Your task to perform on an android device: open a bookmark in the chrome app Image 0: 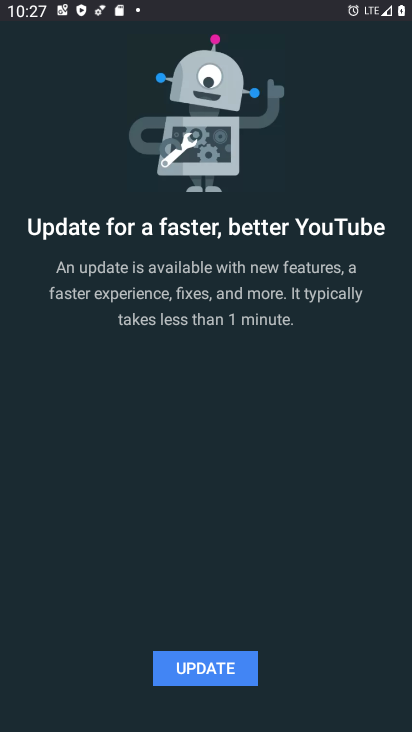
Step 0: press home button
Your task to perform on an android device: open a bookmark in the chrome app Image 1: 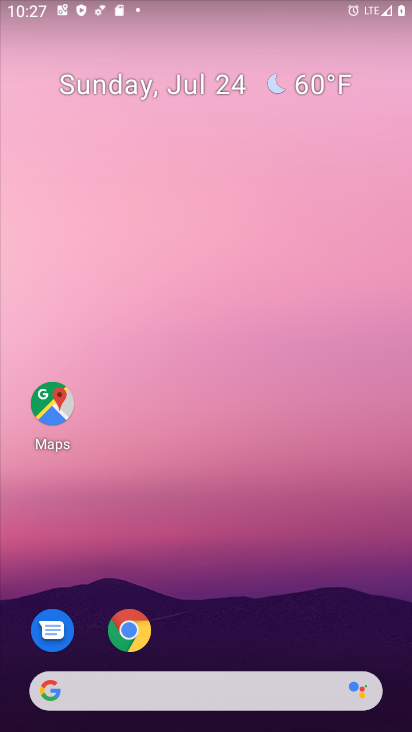
Step 1: drag from (194, 649) to (233, 79)
Your task to perform on an android device: open a bookmark in the chrome app Image 2: 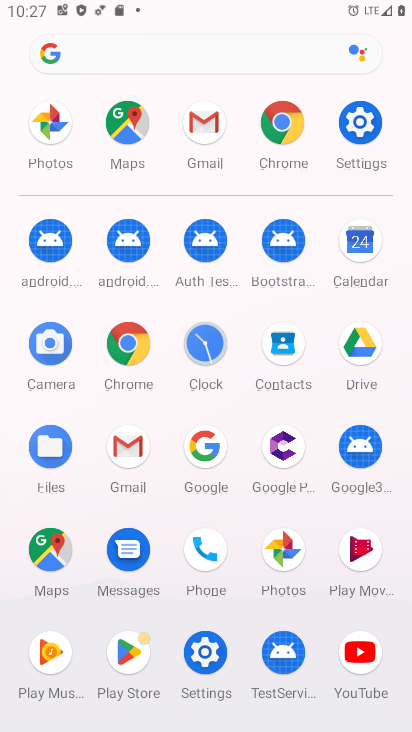
Step 2: click (127, 348)
Your task to perform on an android device: open a bookmark in the chrome app Image 3: 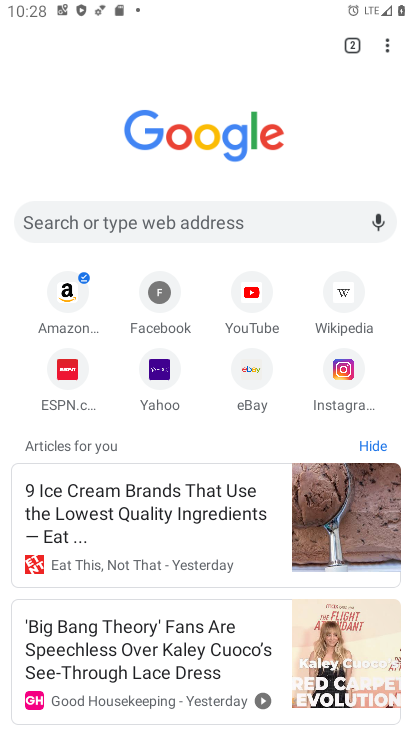
Step 3: click (386, 36)
Your task to perform on an android device: open a bookmark in the chrome app Image 4: 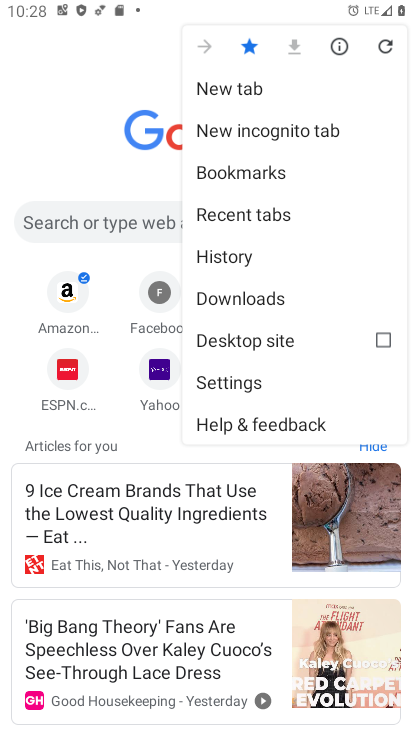
Step 4: click (254, 173)
Your task to perform on an android device: open a bookmark in the chrome app Image 5: 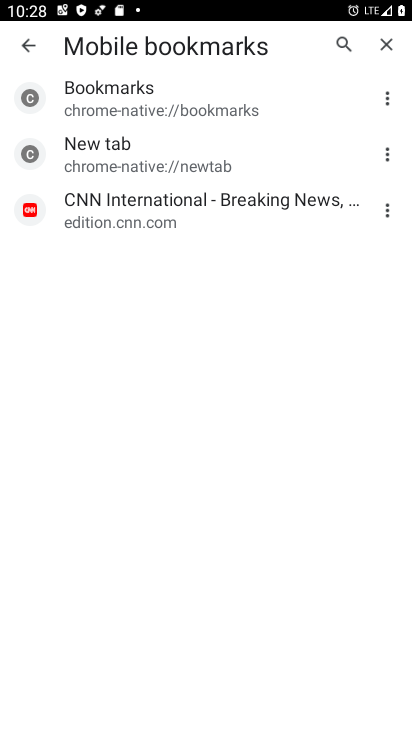
Step 5: click (140, 204)
Your task to perform on an android device: open a bookmark in the chrome app Image 6: 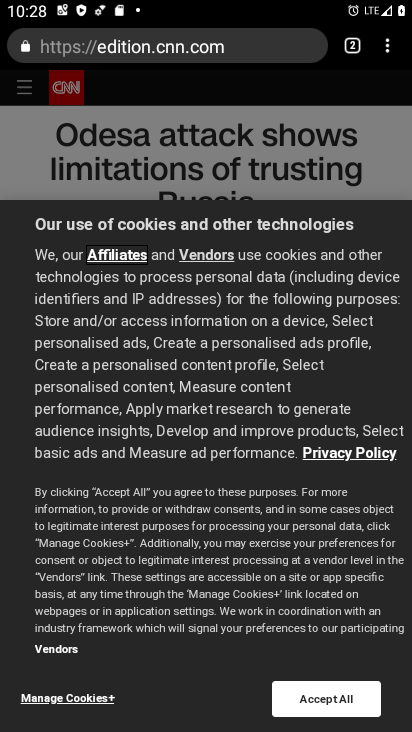
Step 6: task complete